Your task to perform on an android device: toggle pop-ups in chrome Image 0: 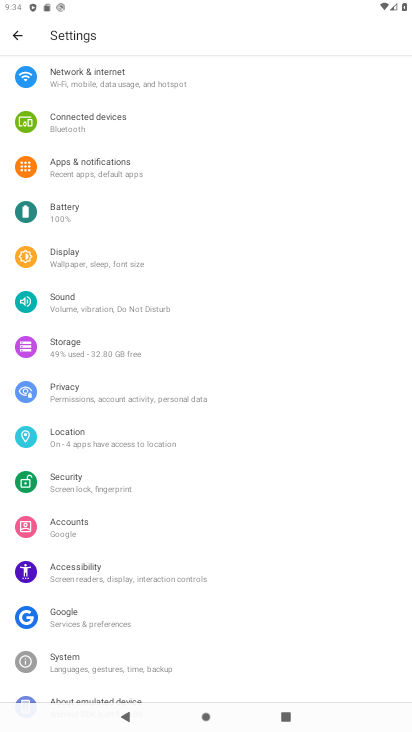
Step 0: press home button
Your task to perform on an android device: toggle pop-ups in chrome Image 1: 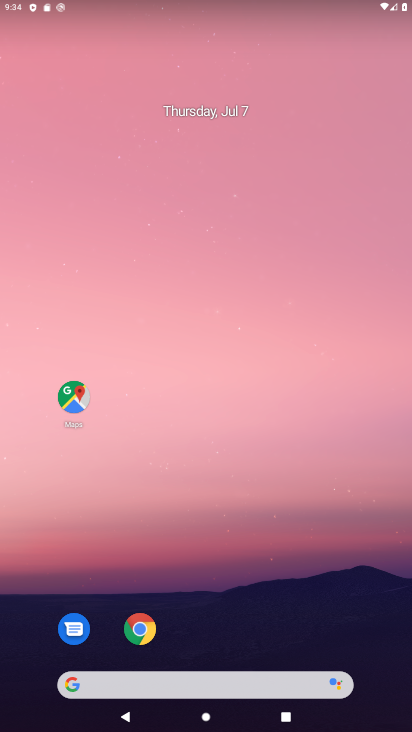
Step 1: click (128, 633)
Your task to perform on an android device: toggle pop-ups in chrome Image 2: 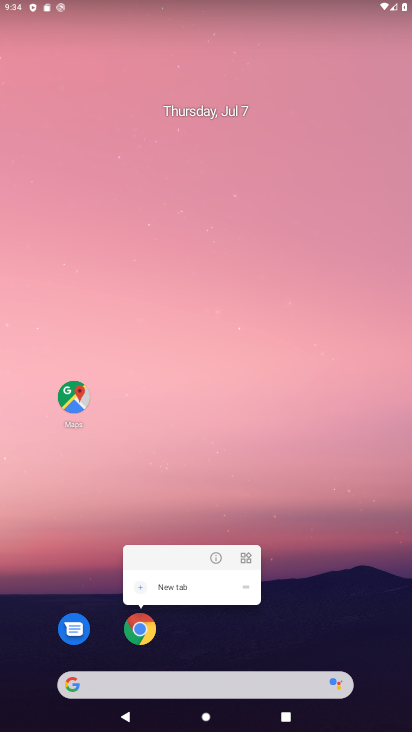
Step 2: click (139, 621)
Your task to perform on an android device: toggle pop-ups in chrome Image 3: 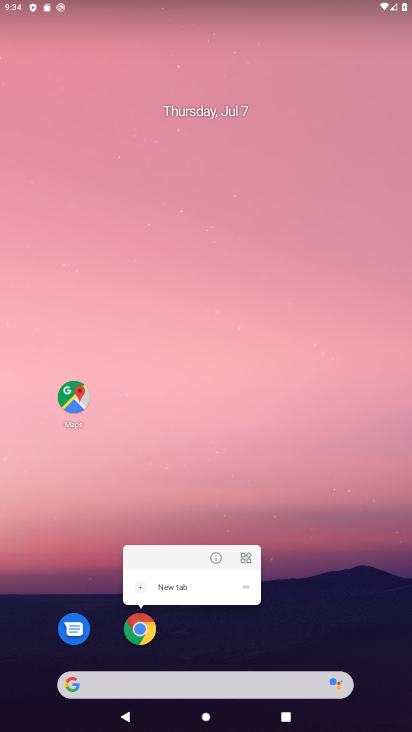
Step 3: click (132, 627)
Your task to perform on an android device: toggle pop-ups in chrome Image 4: 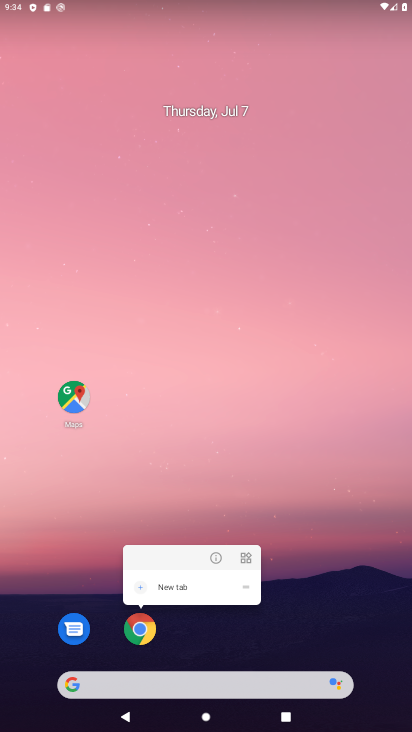
Step 4: click (145, 640)
Your task to perform on an android device: toggle pop-ups in chrome Image 5: 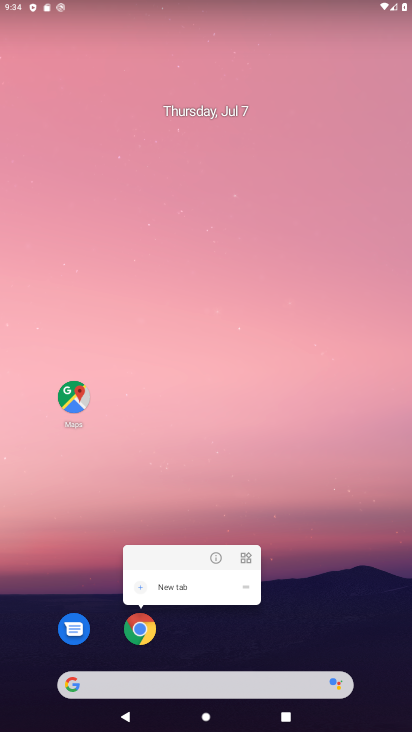
Step 5: click (139, 634)
Your task to perform on an android device: toggle pop-ups in chrome Image 6: 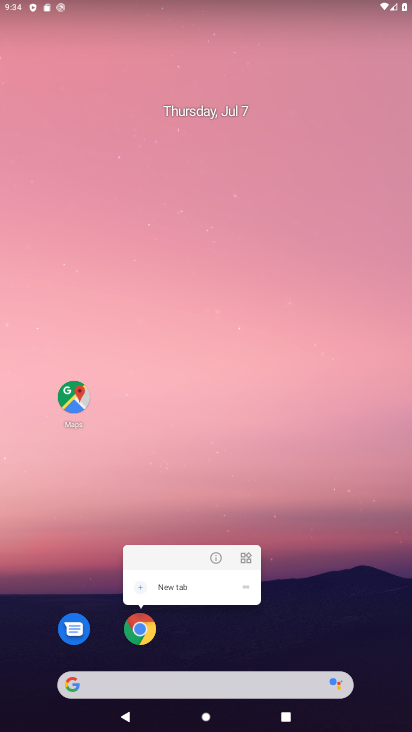
Step 6: click (138, 633)
Your task to perform on an android device: toggle pop-ups in chrome Image 7: 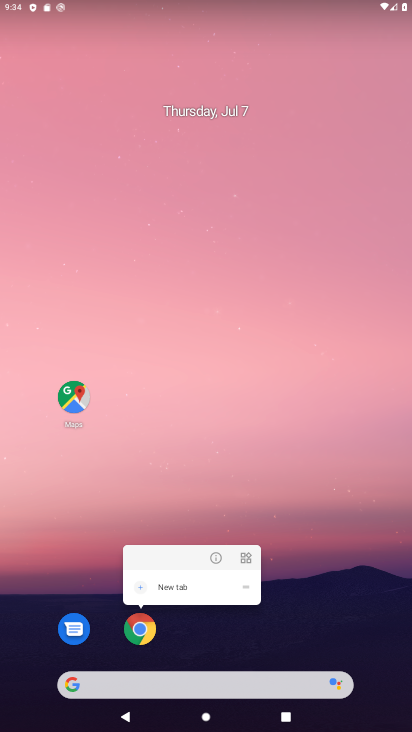
Step 7: task complete